Your task to perform on an android device: Open settings Image 0: 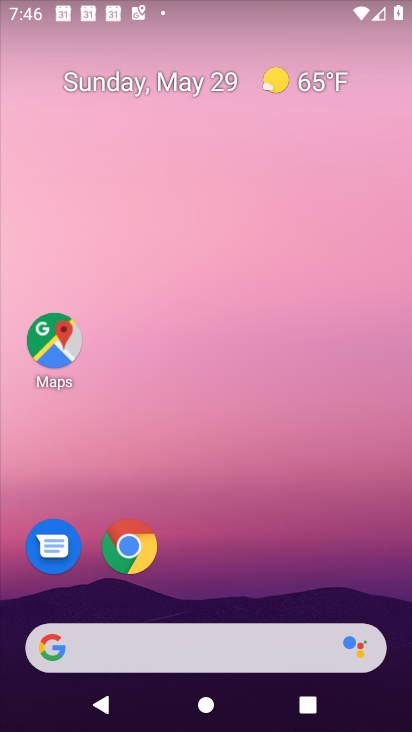
Step 0: click (276, 248)
Your task to perform on an android device: Open settings Image 1: 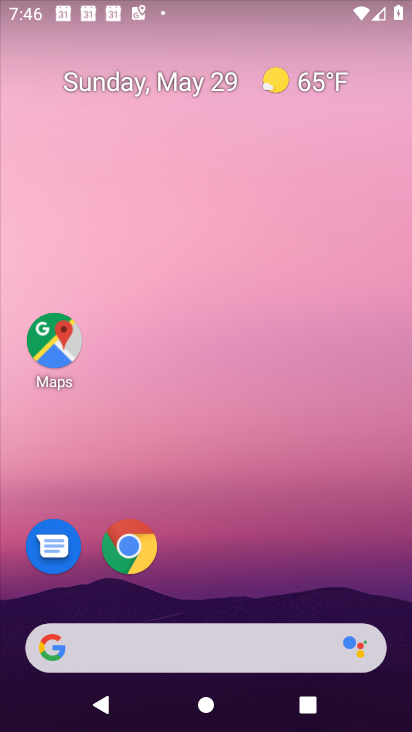
Step 1: drag from (206, 588) to (268, 206)
Your task to perform on an android device: Open settings Image 2: 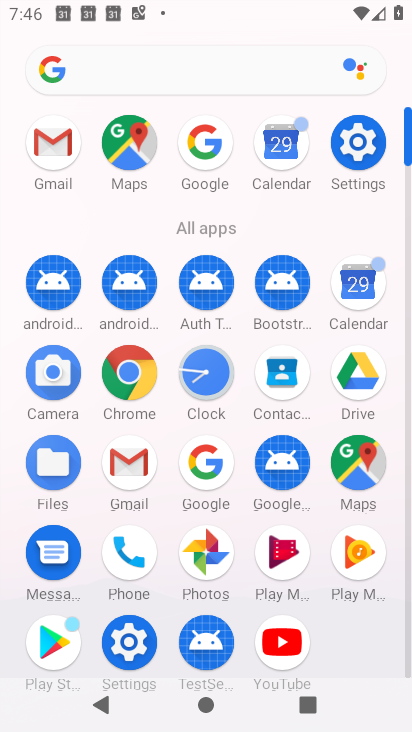
Step 2: click (364, 117)
Your task to perform on an android device: Open settings Image 3: 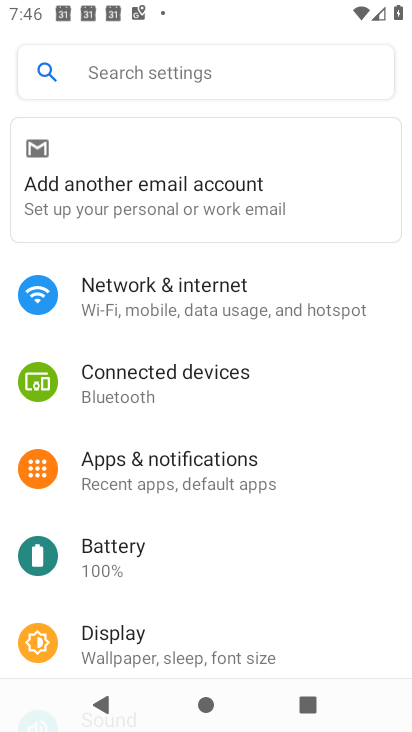
Step 3: task complete